Your task to perform on an android device: Go to Yahoo.com Image 0: 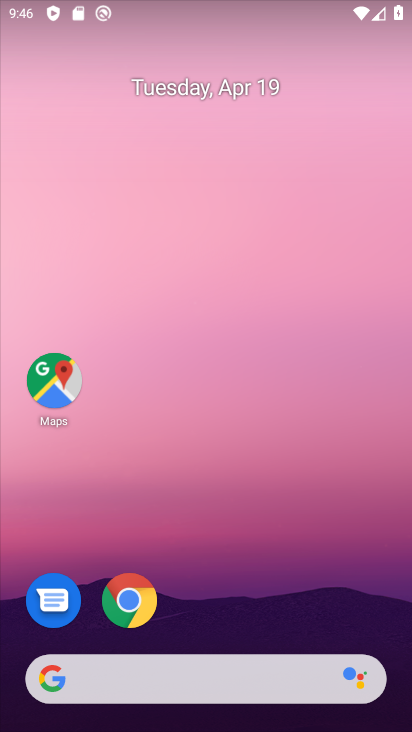
Step 0: drag from (263, 604) to (349, 0)
Your task to perform on an android device: Go to Yahoo.com Image 1: 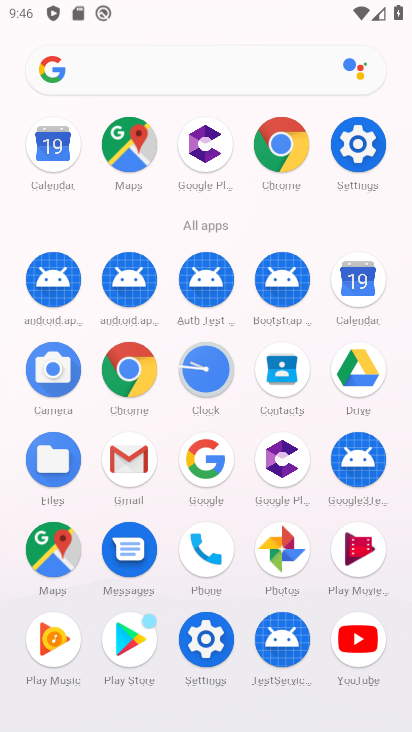
Step 1: click (264, 152)
Your task to perform on an android device: Go to Yahoo.com Image 2: 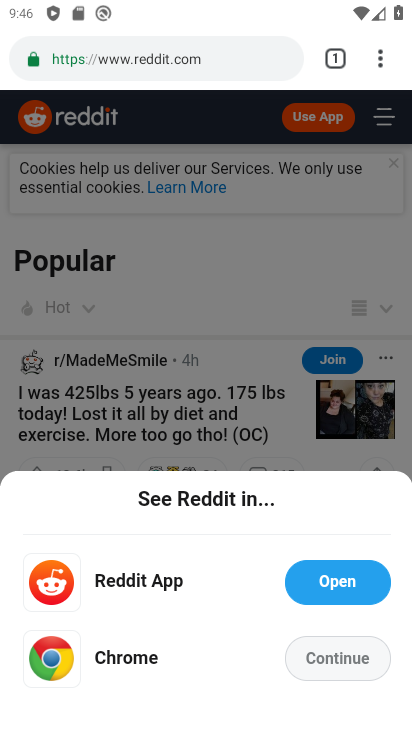
Step 2: press back button
Your task to perform on an android device: Go to Yahoo.com Image 3: 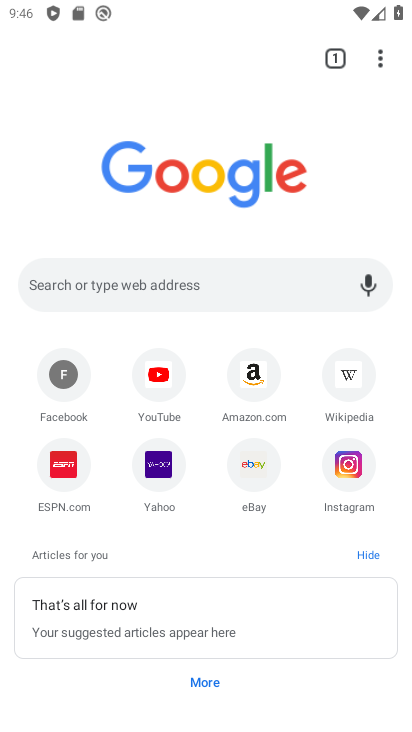
Step 3: click (154, 462)
Your task to perform on an android device: Go to Yahoo.com Image 4: 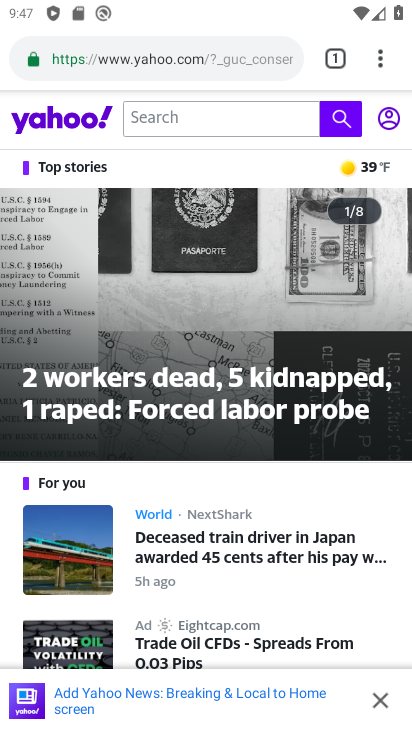
Step 4: task complete